Your task to perform on an android device: open sync settings in chrome Image 0: 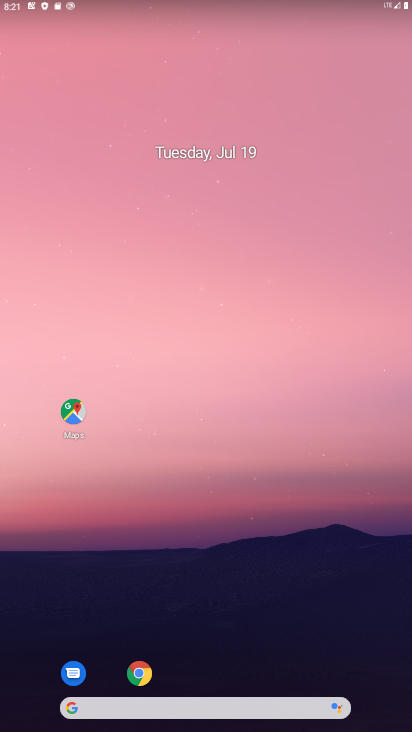
Step 0: drag from (365, 688) to (212, 15)
Your task to perform on an android device: open sync settings in chrome Image 1: 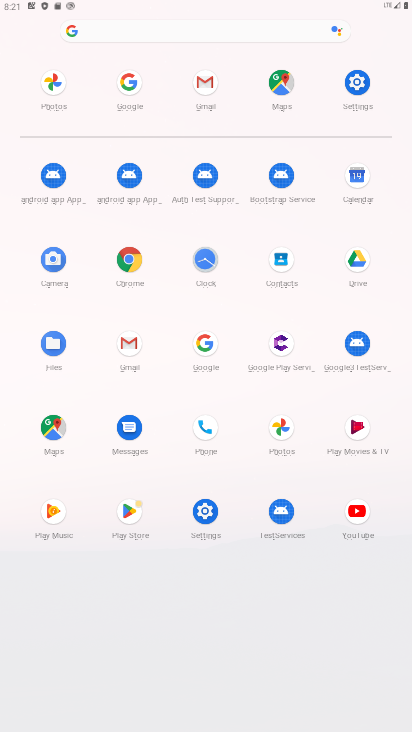
Step 1: click (130, 255)
Your task to perform on an android device: open sync settings in chrome Image 2: 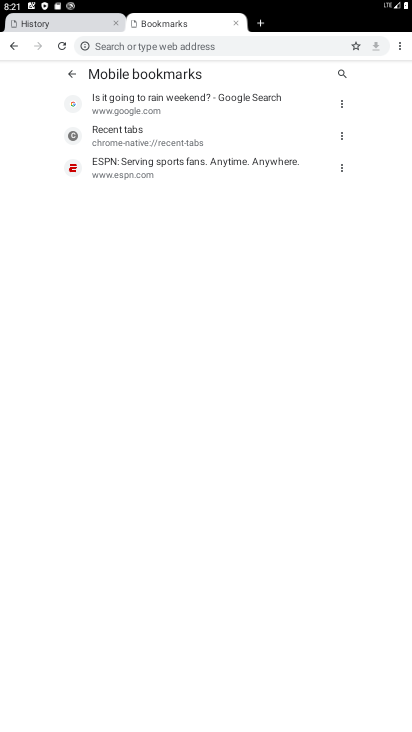
Step 2: click (402, 47)
Your task to perform on an android device: open sync settings in chrome Image 3: 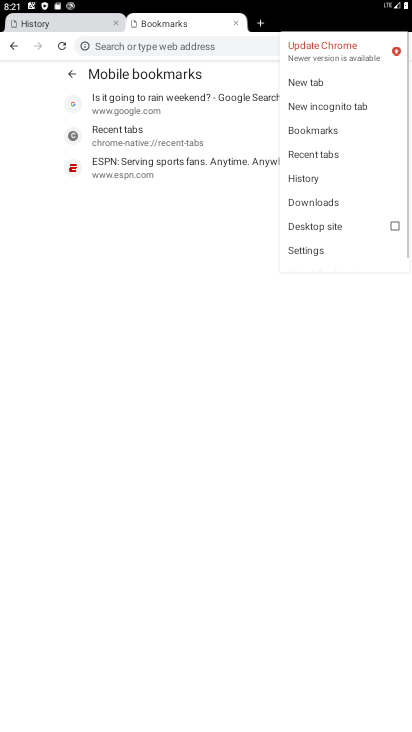
Step 3: click (306, 250)
Your task to perform on an android device: open sync settings in chrome Image 4: 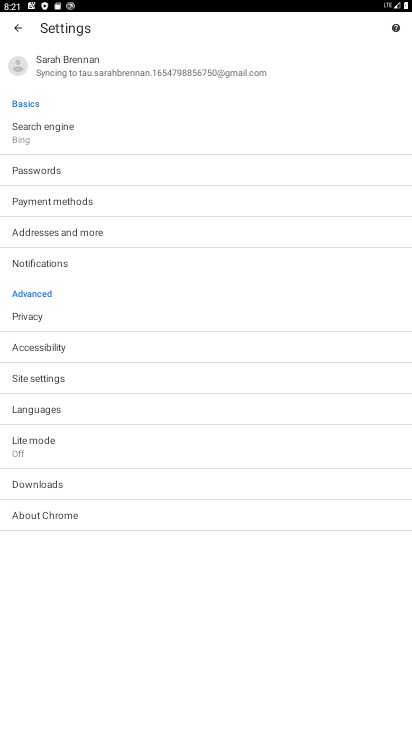
Step 4: click (51, 375)
Your task to perform on an android device: open sync settings in chrome Image 5: 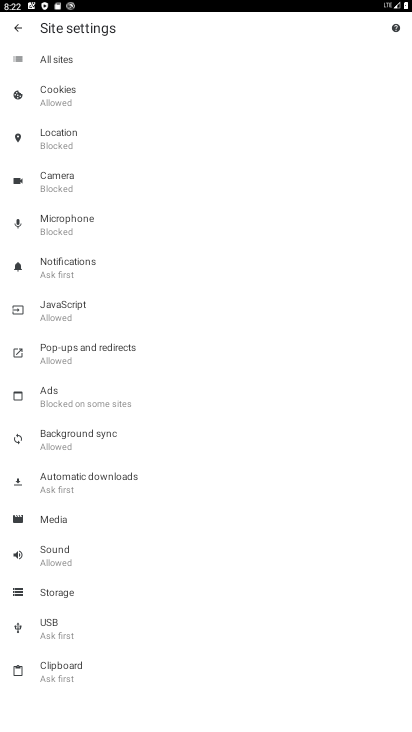
Step 5: click (97, 449)
Your task to perform on an android device: open sync settings in chrome Image 6: 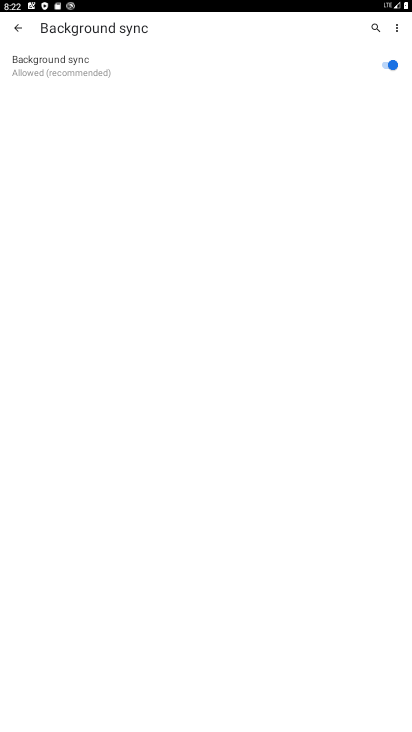
Step 6: task complete